Your task to perform on an android device: check the backup settings in the google photos Image 0: 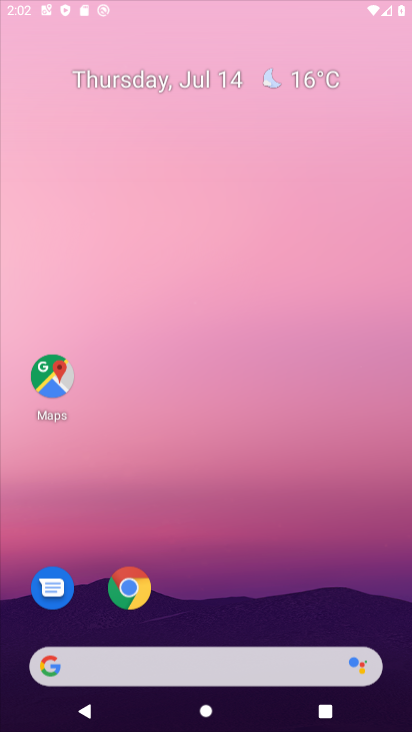
Step 0: click (242, 649)
Your task to perform on an android device: check the backup settings in the google photos Image 1: 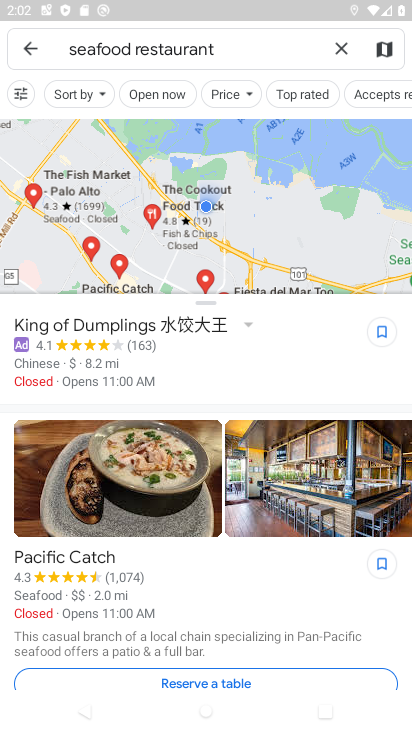
Step 1: press home button
Your task to perform on an android device: check the backup settings in the google photos Image 2: 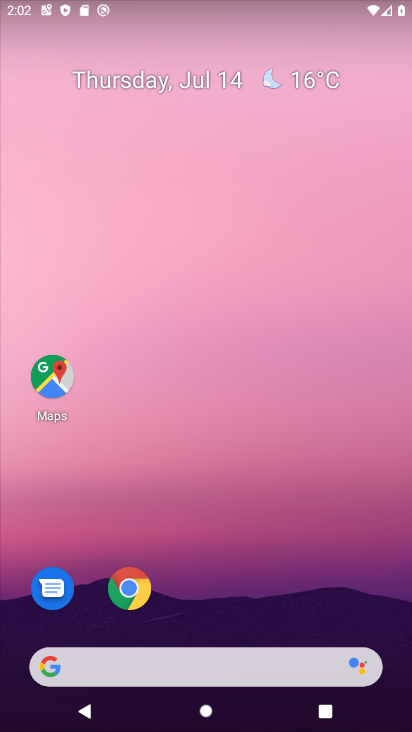
Step 2: drag from (299, 603) to (301, 200)
Your task to perform on an android device: check the backup settings in the google photos Image 3: 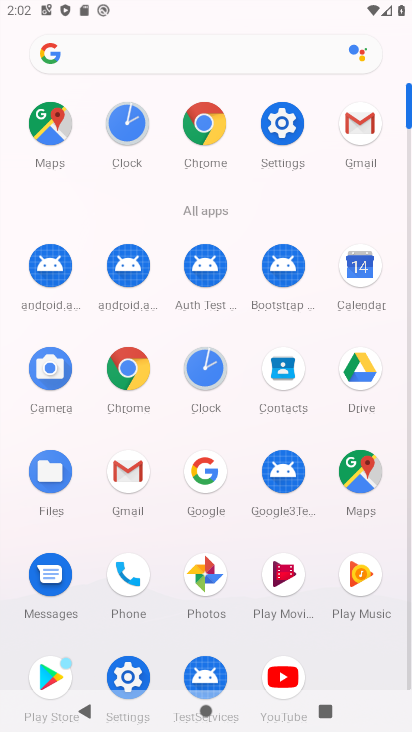
Step 3: click (195, 576)
Your task to perform on an android device: check the backup settings in the google photos Image 4: 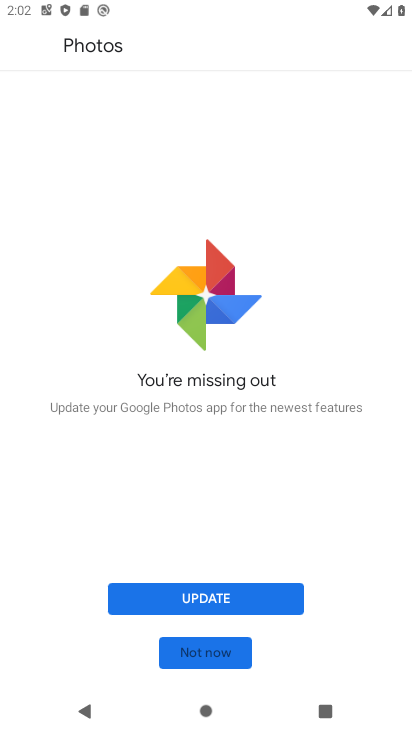
Step 4: click (213, 663)
Your task to perform on an android device: check the backup settings in the google photos Image 5: 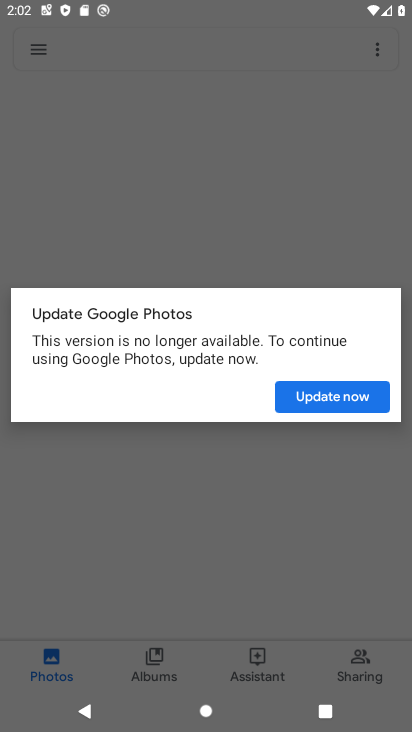
Step 5: click (351, 383)
Your task to perform on an android device: check the backup settings in the google photos Image 6: 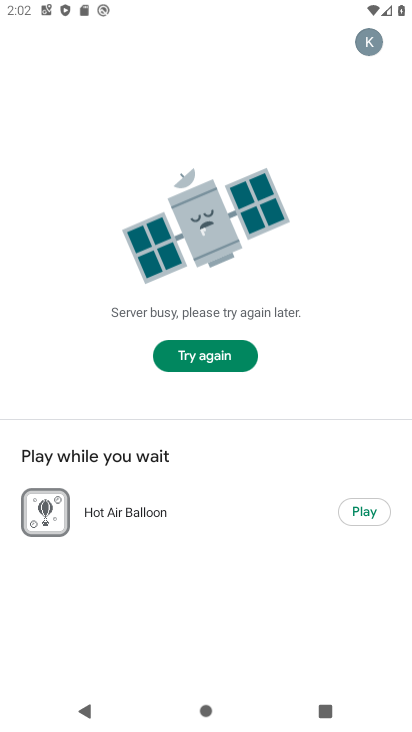
Step 6: click (200, 365)
Your task to perform on an android device: check the backup settings in the google photos Image 7: 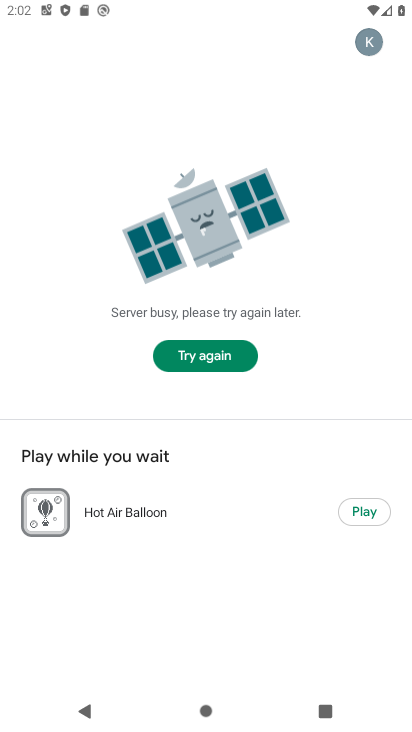
Step 7: task complete